Your task to perform on an android device: Turn off the flashlight Image 0: 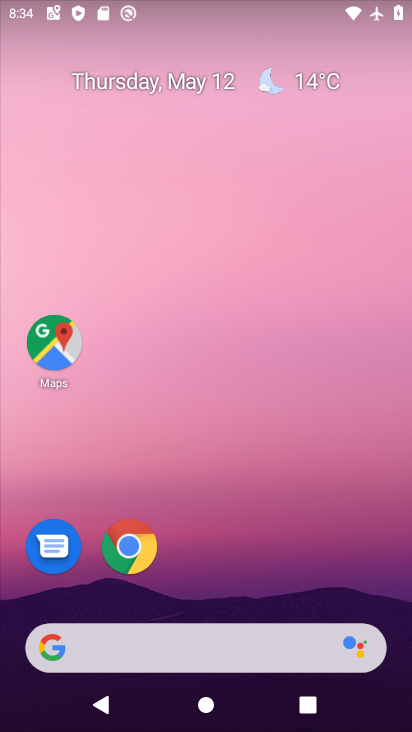
Step 0: drag from (283, 0) to (189, 428)
Your task to perform on an android device: Turn off the flashlight Image 1: 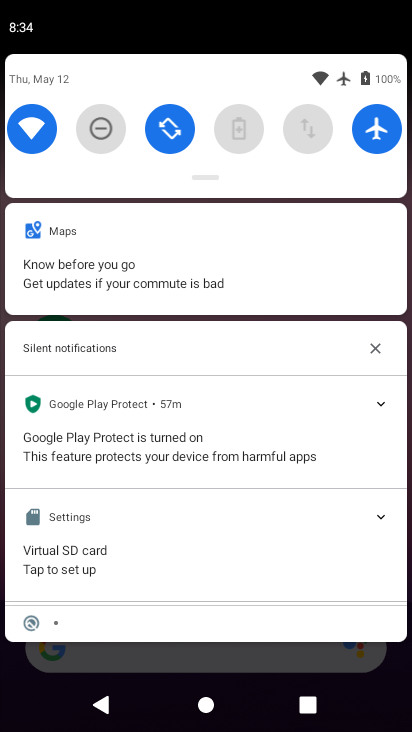
Step 1: task complete